Your task to perform on an android device: Show me popular games on the Play Store Image 0: 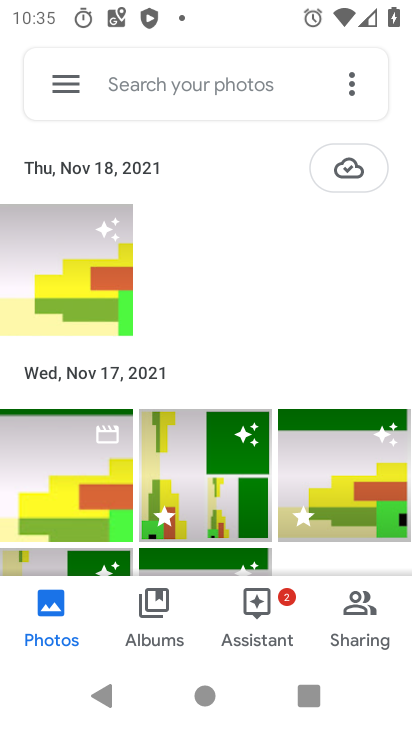
Step 0: press home button
Your task to perform on an android device: Show me popular games on the Play Store Image 1: 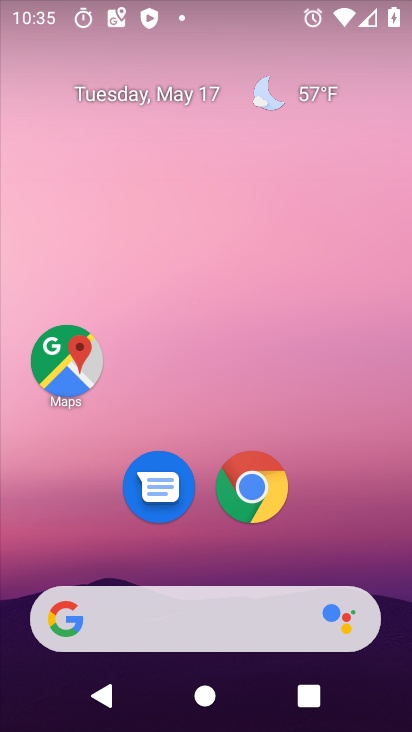
Step 1: drag from (197, 727) to (200, 106)
Your task to perform on an android device: Show me popular games on the Play Store Image 2: 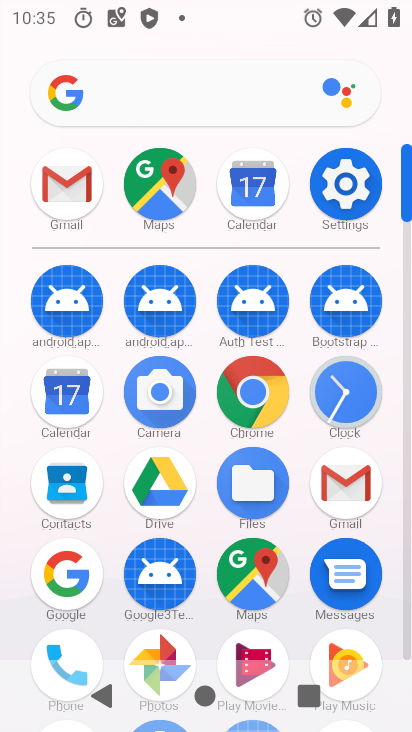
Step 2: drag from (208, 645) to (215, 265)
Your task to perform on an android device: Show me popular games on the Play Store Image 3: 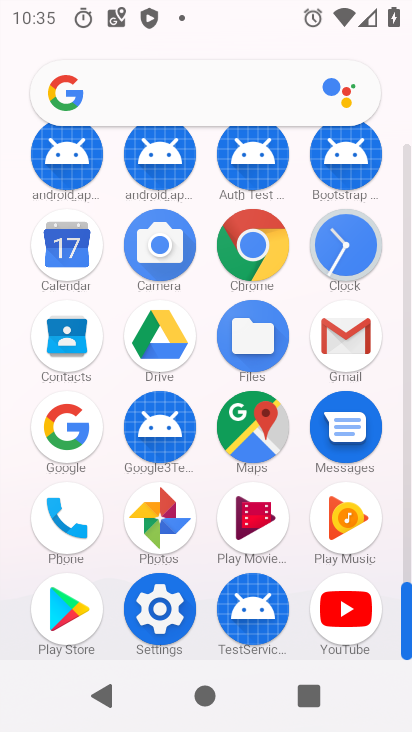
Step 3: click (66, 617)
Your task to perform on an android device: Show me popular games on the Play Store Image 4: 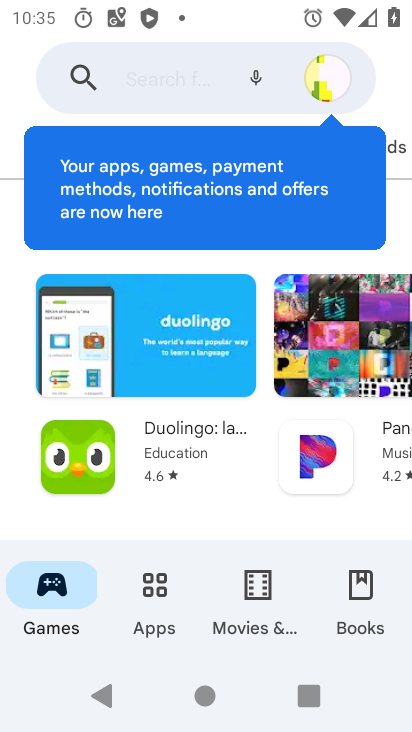
Step 4: drag from (175, 529) to (172, 235)
Your task to perform on an android device: Show me popular games on the Play Store Image 5: 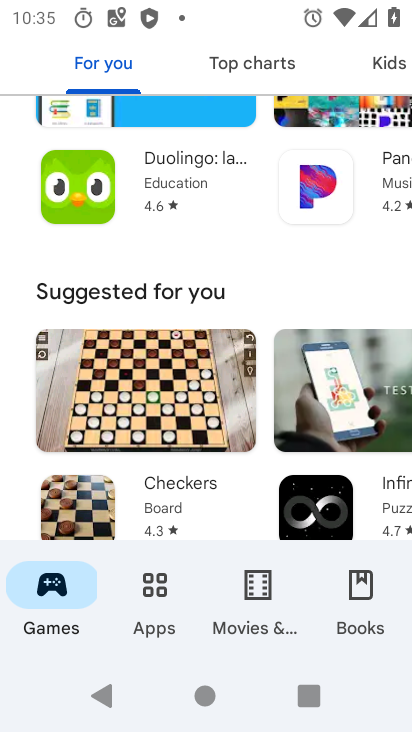
Step 5: drag from (224, 520) to (227, 209)
Your task to perform on an android device: Show me popular games on the Play Store Image 6: 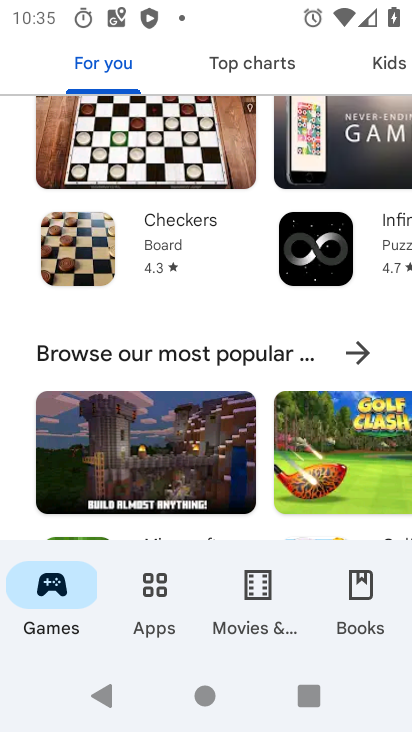
Step 6: drag from (223, 442) to (229, 379)
Your task to perform on an android device: Show me popular games on the Play Store Image 7: 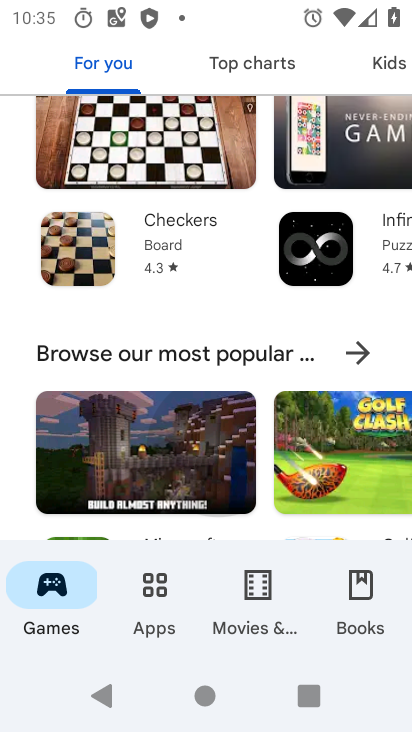
Step 7: drag from (231, 317) to (238, 281)
Your task to perform on an android device: Show me popular games on the Play Store Image 8: 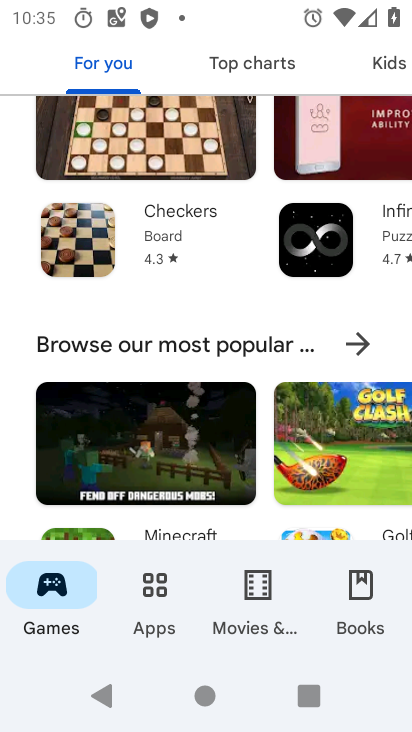
Step 8: click (289, 344)
Your task to perform on an android device: Show me popular games on the Play Store Image 9: 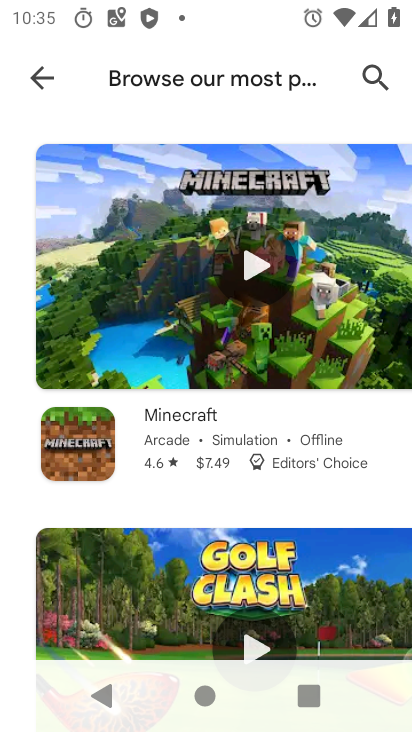
Step 9: task complete